Your task to perform on an android device: turn on the 24-hour format for clock Image 0: 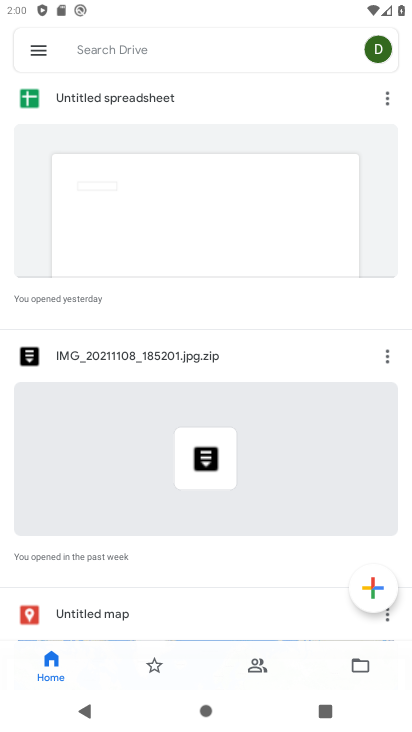
Step 0: press home button
Your task to perform on an android device: turn on the 24-hour format for clock Image 1: 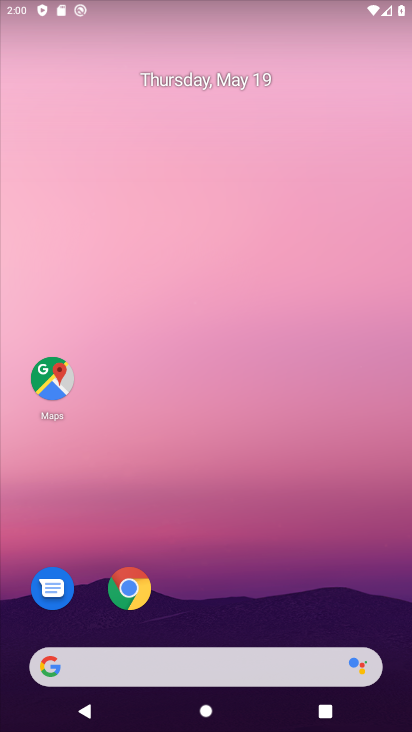
Step 1: drag from (280, 293) to (273, 56)
Your task to perform on an android device: turn on the 24-hour format for clock Image 2: 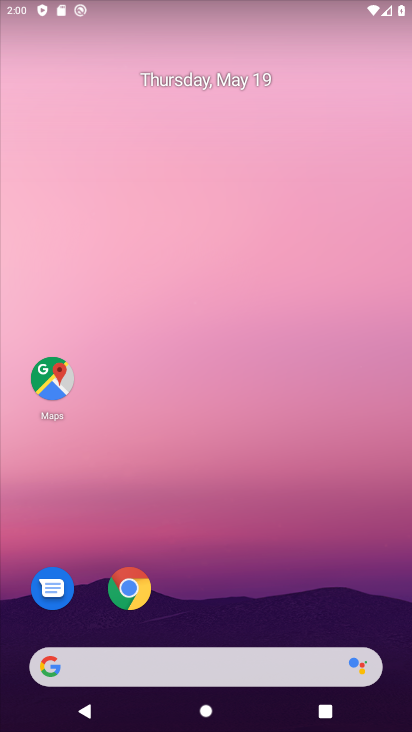
Step 2: drag from (199, 586) to (236, 48)
Your task to perform on an android device: turn on the 24-hour format for clock Image 3: 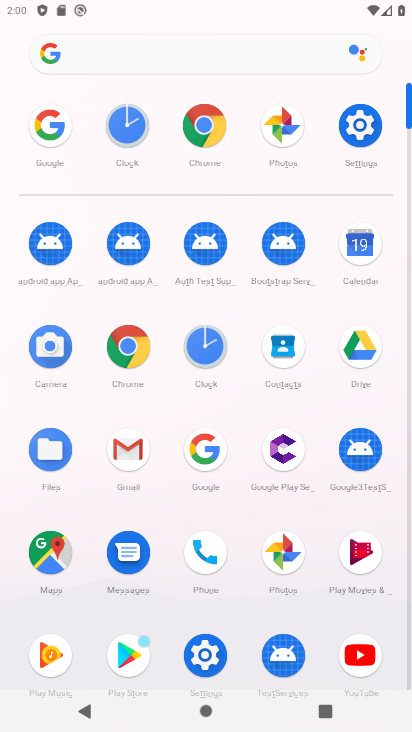
Step 3: click (124, 123)
Your task to perform on an android device: turn on the 24-hour format for clock Image 4: 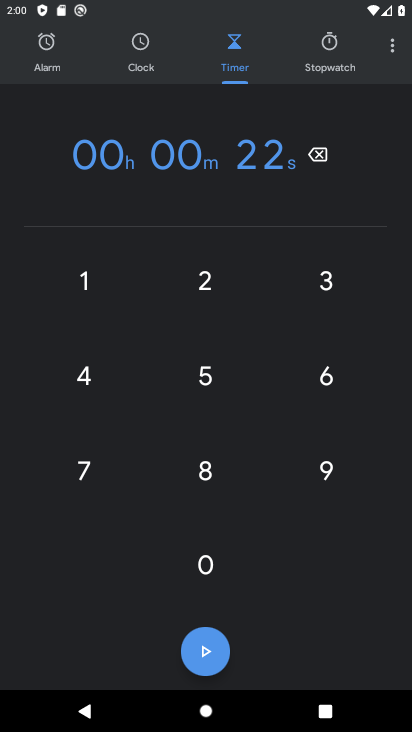
Step 4: click (387, 43)
Your task to perform on an android device: turn on the 24-hour format for clock Image 5: 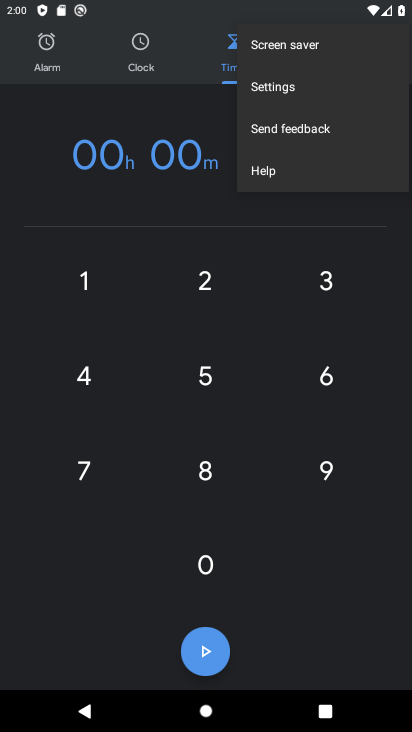
Step 5: click (307, 82)
Your task to perform on an android device: turn on the 24-hour format for clock Image 6: 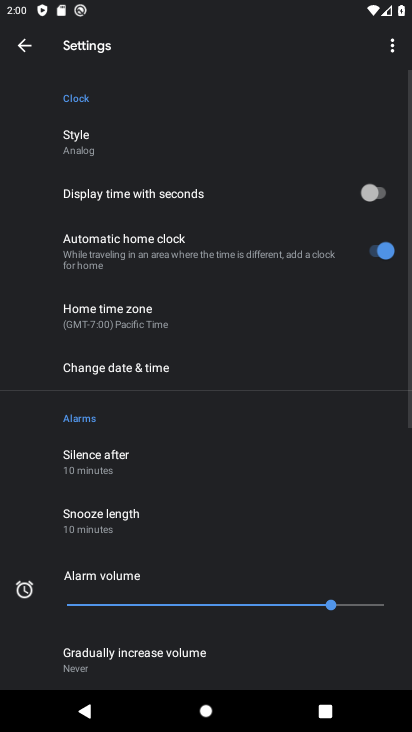
Step 6: click (115, 373)
Your task to perform on an android device: turn on the 24-hour format for clock Image 7: 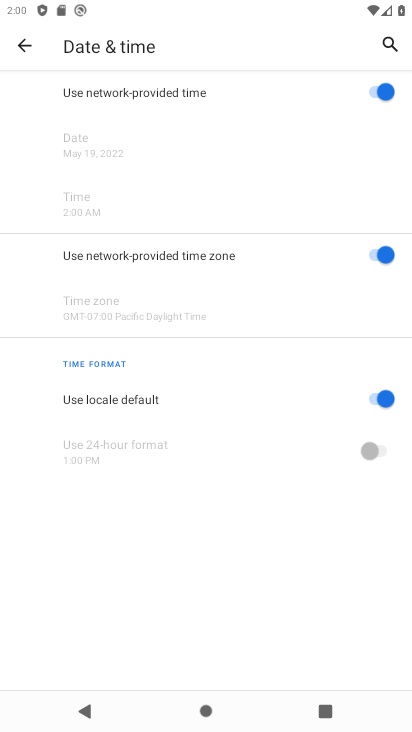
Step 7: click (376, 408)
Your task to perform on an android device: turn on the 24-hour format for clock Image 8: 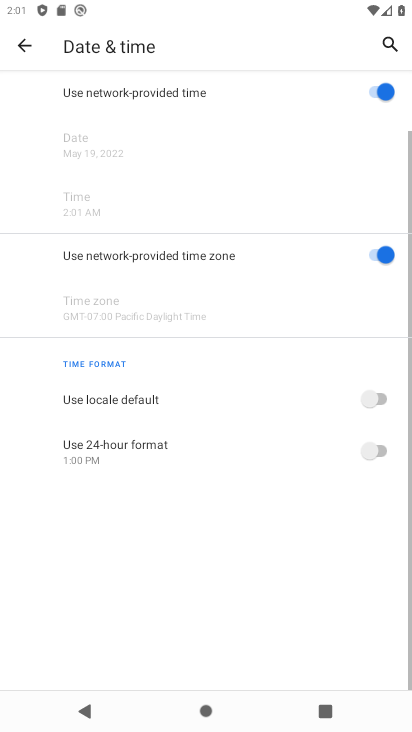
Step 8: click (373, 449)
Your task to perform on an android device: turn on the 24-hour format for clock Image 9: 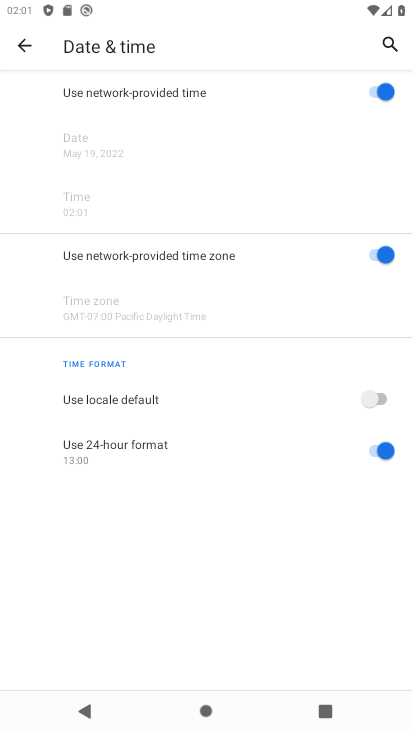
Step 9: task complete